Your task to perform on an android device: check battery use Image 0: 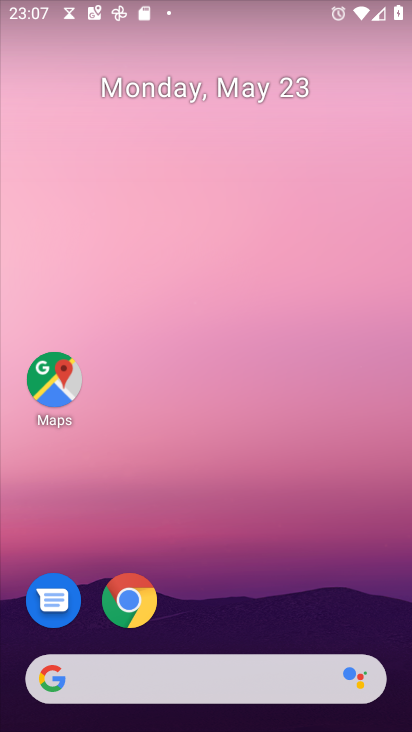
Step 0: drag from (239, 723) to (239, 81)
Your task to perform on an android device: check battery use Image 1: 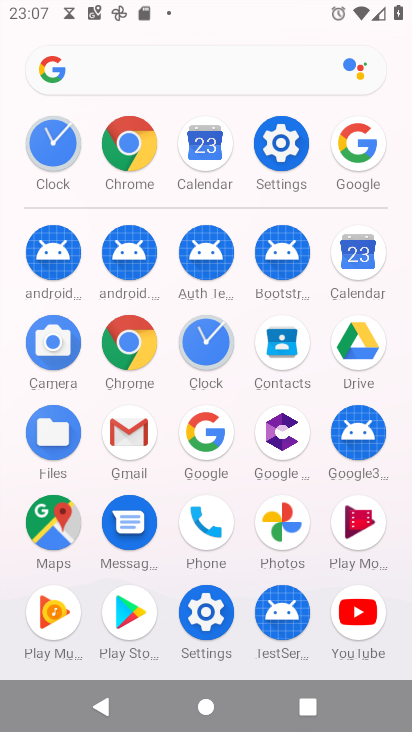
Step 1: click (271, 145)
Your task to perform on an android device: check battery use Image 2: 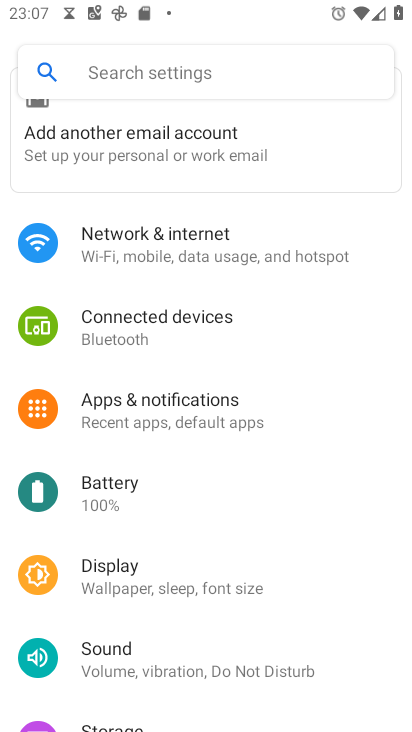
Step 2: click (108, 487)
Your task to perform on an android device: check battery use Image 3: 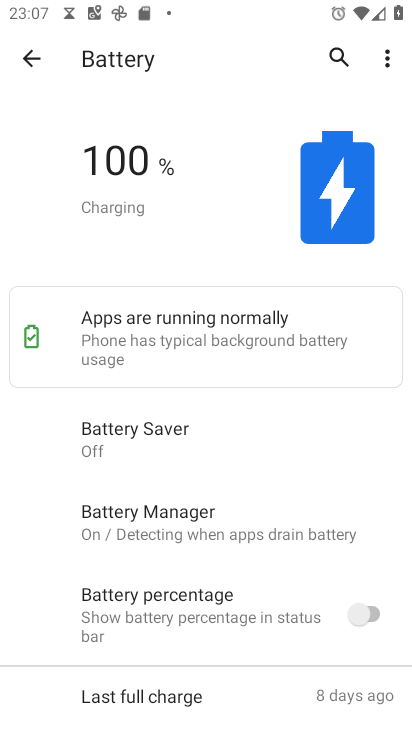
Step 3: click (388, 67)
Your task to perform on an android device: check battery use Image 4: 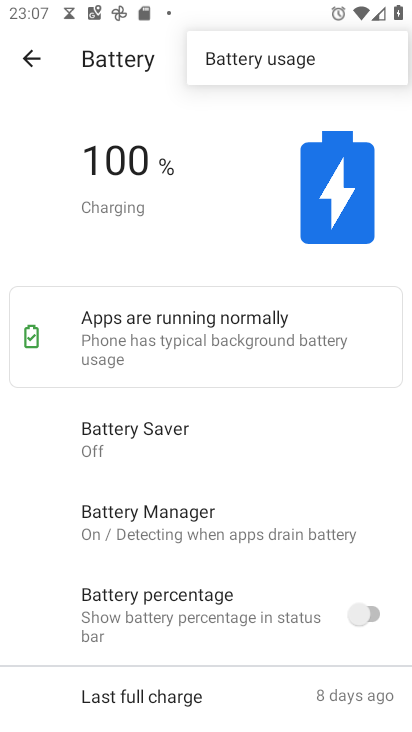
Step 4: click (276, 52)
Your task to perform on an android device: check battery use Image 5: 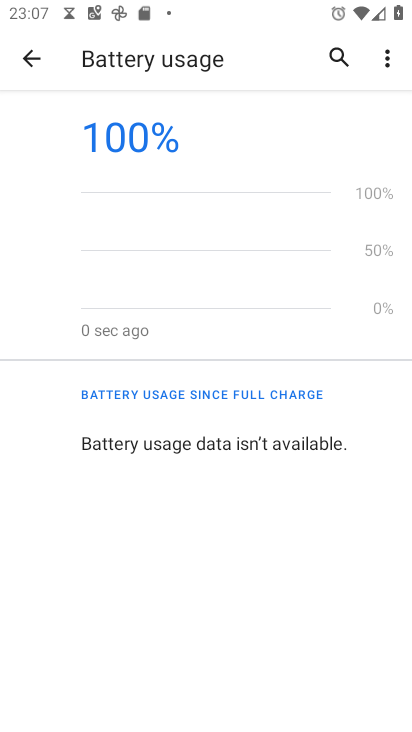
Step 5: task complete